Your task to perform on an android device: Search for Mexican restaurants on Maps Image 0: 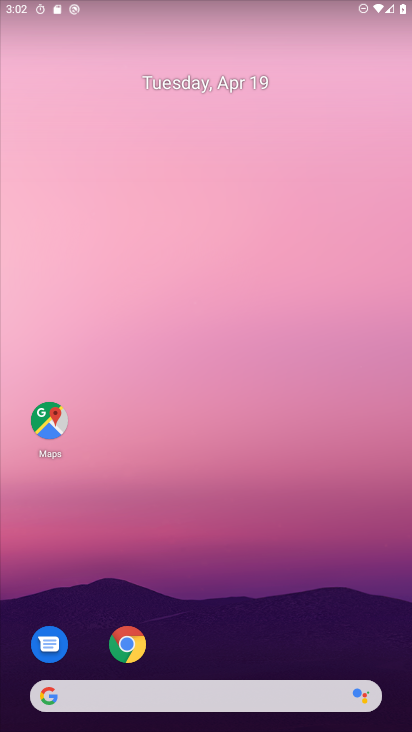
Step 0: click (53, 422)
Your task to perform on an android device: Search for Mexican restaurants on Maps Image 1: 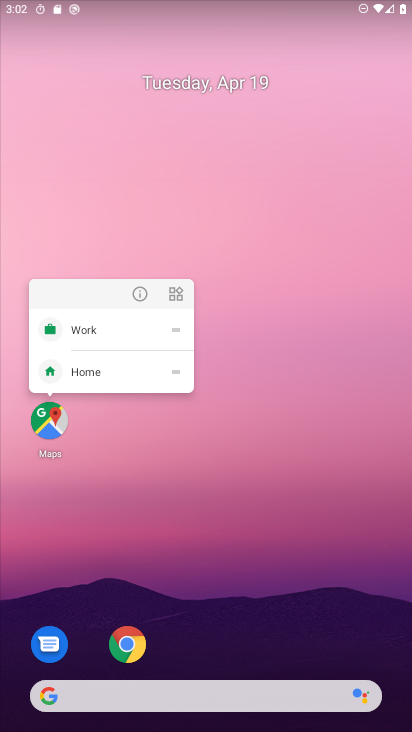
Step 1: click (47, 419)
Your task to perform on an android device: Search for Mexican restaurants on Maps Image 2: 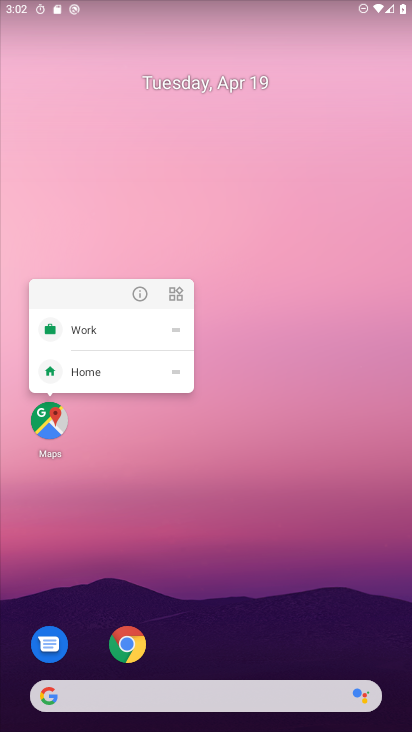
Step 2: click (60, 431)
Your task to perform on an android device: Search for Mexican restaurants on Maps Image 3: 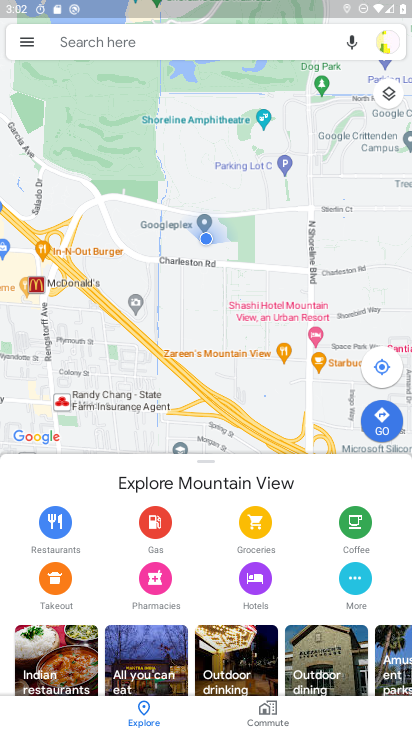
Step 3: click (225, 42)
Your task to perform on an android device: Search for Mexican restaurants on Maps Image 4: 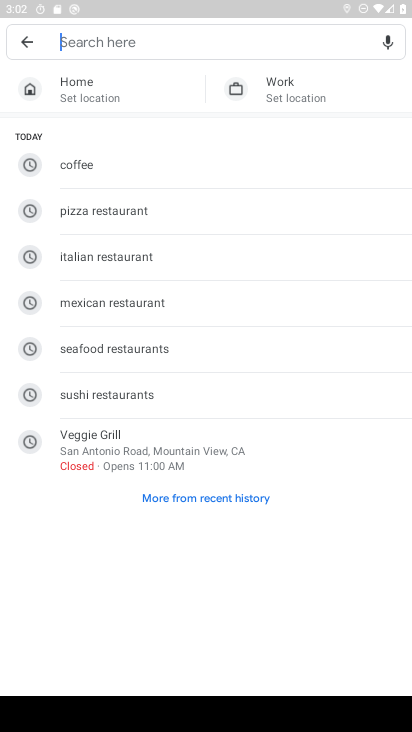
Step 4: click (104, 305)
Your task to perform on an android device: Search for Mexican restaurants on Maps Image 5: 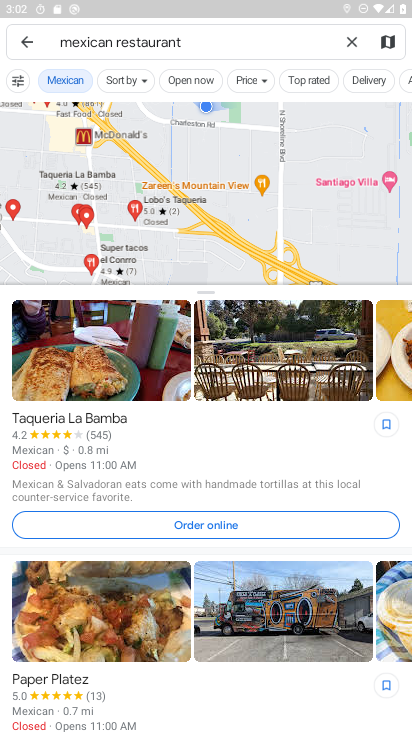
Step 5: task complete